Your task to perform on an android device: set the timer Image 0: 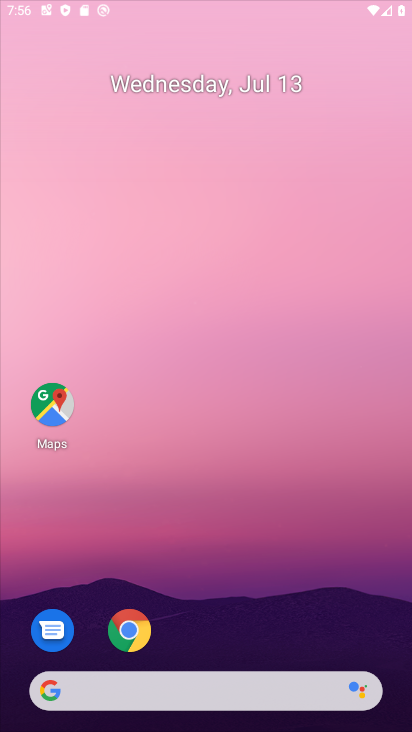
Step 0: click (365, 206)
Your task to perform on an android device: set the timer Image 1: 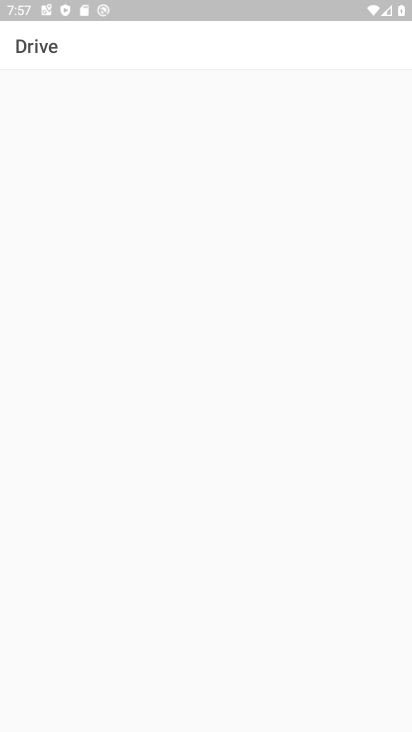
Step 1: press home button
Your task to perform on an android device: set the timer Image 2: 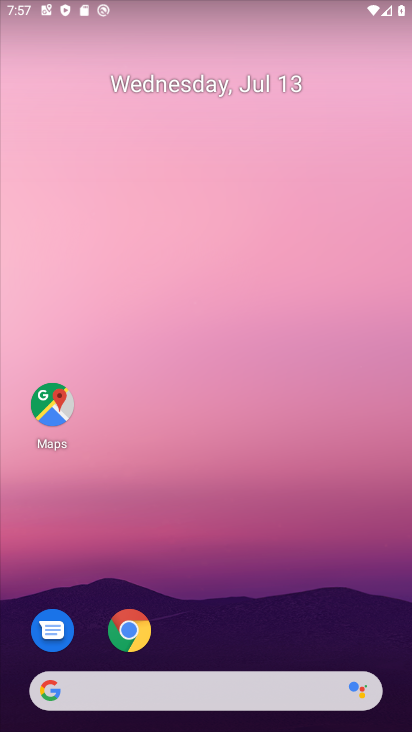
Step 2: drag from (365, 598) to (375, 97)
Your task to perform on an android device: set the timer Image 3: 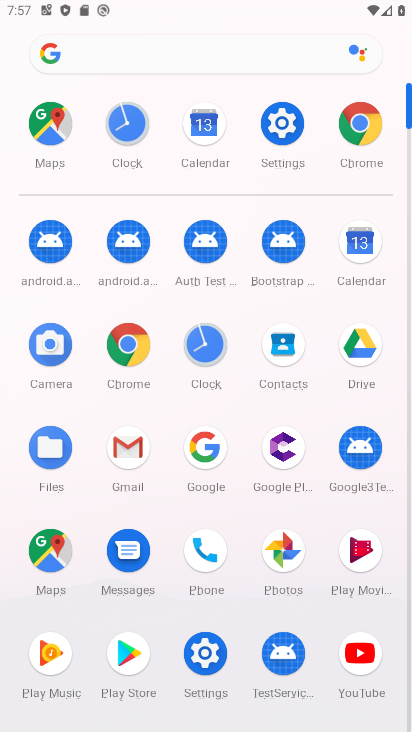
Step 3: click (204, 344)
Your task to perform on an android device: set the timer Image 4: 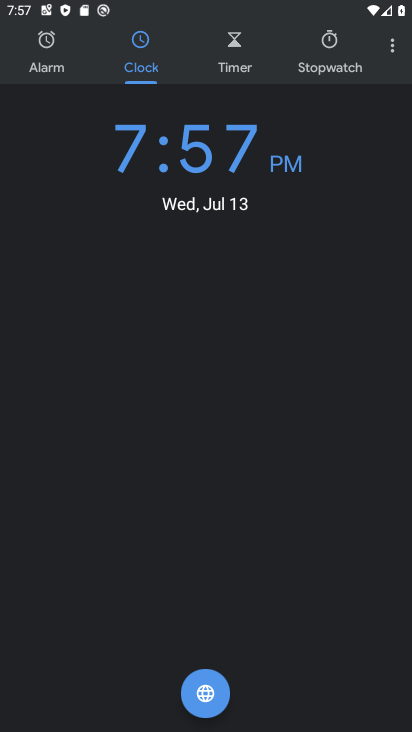
Step 4: click (233, 56)
Your task to perform on an android device: set the timer Image 5: 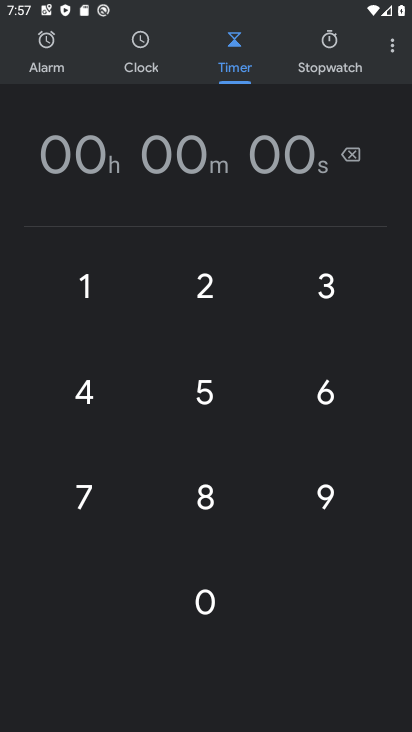
Step 5: click (218, 383)
Your task to perform on an android device: set the timer Image 6: 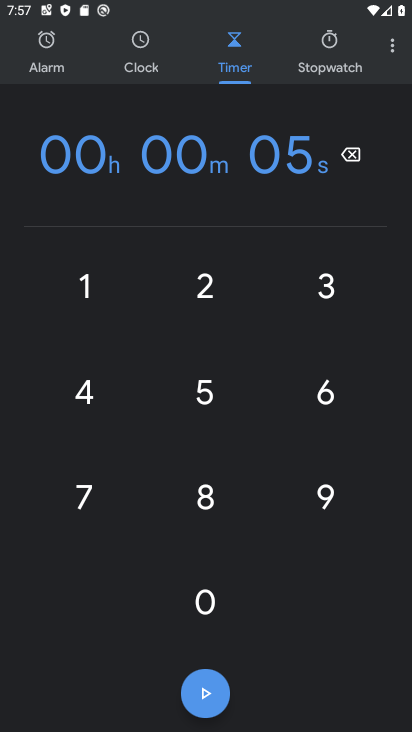
Step 6: task complete